Your task to perform on an android device: read, delete, or share a saved page in the chrome app Image 0: 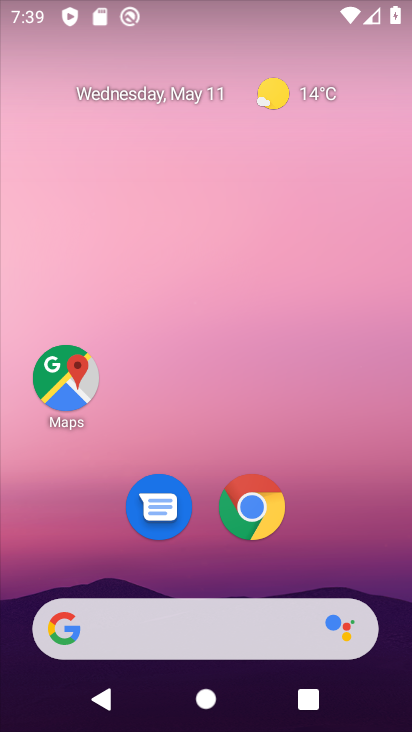
Step 0: click (382, 0)
Your task to perform on an android device: read, delete, or share a saved page in the chrome app Image 1: 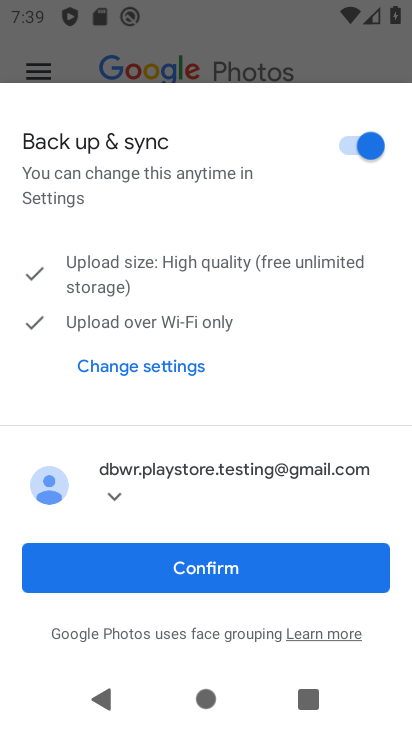
Step 1: press home button
Your task to perform on an android device: read, delete, or share a saved page in the chrome app Image 2: 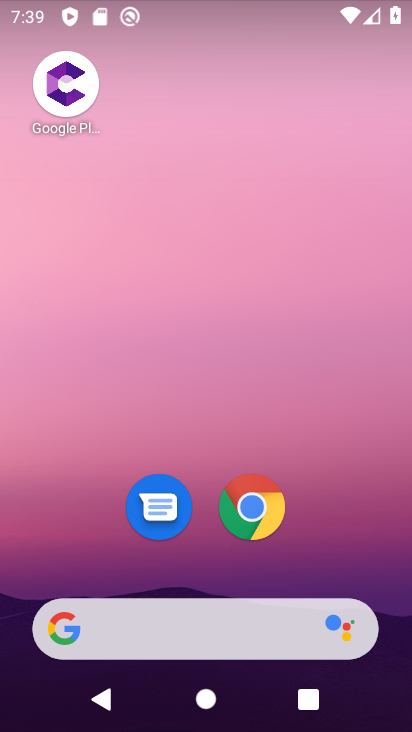
Step 2: click (267, 496)
Your task to perform on an android device: read, delete, or share a saved page in the chrome app Image 3: 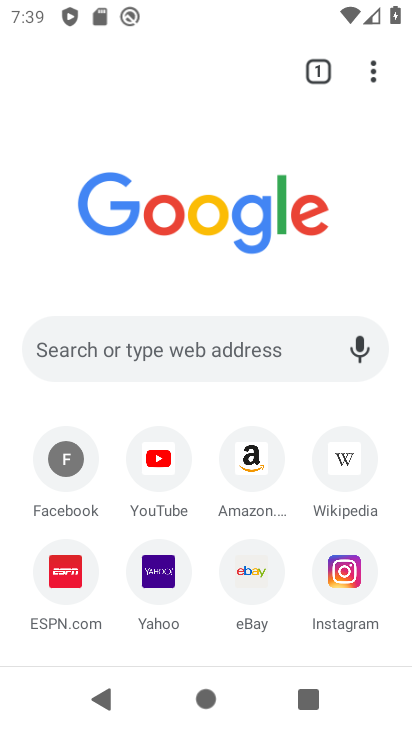
Step 3: drag from (378, 56) to (157, 470)
Your task to perform on an android device: read, delete, or share a saved page in the chrome app Image 4: 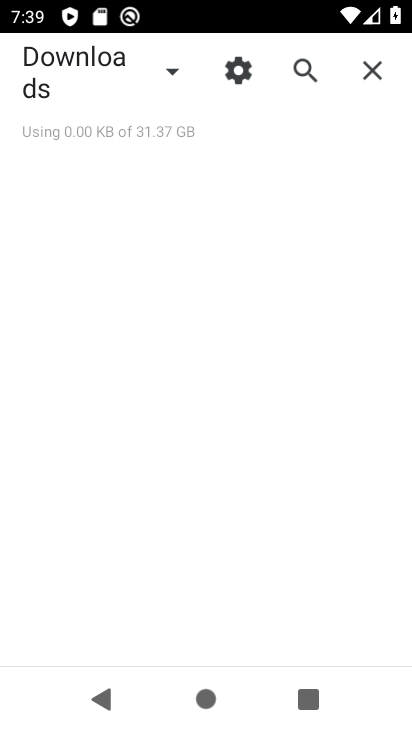
Step 4: click (171, 82)
Your task to perform on an android device: read, delete, or share a saved page in the chrome app Image 5: 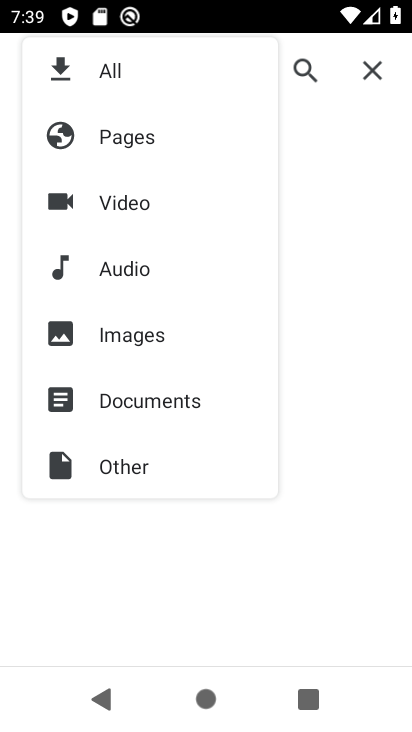
Step 5: task complete